Your task to perform on an android device: change the clock display to show seconds Image 0: 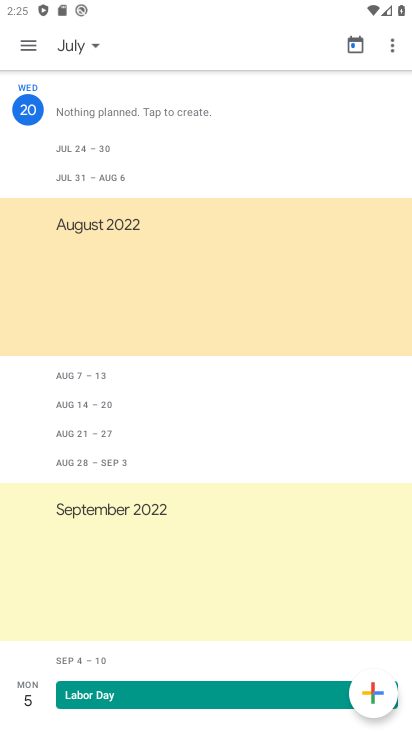
Step 0: press home button
Your task to perform on an android device: change the clock display to show seconds Image 1: 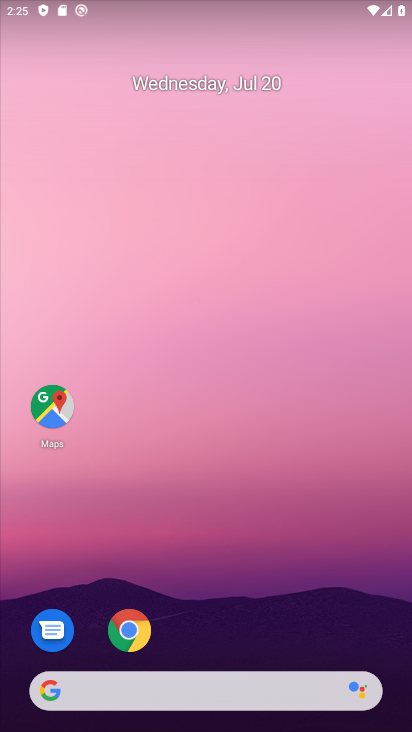
Step 1: drag from (192, 583) to (208, 92)
Your task to perform on an android device: change the clock display to show seconds Image 2: 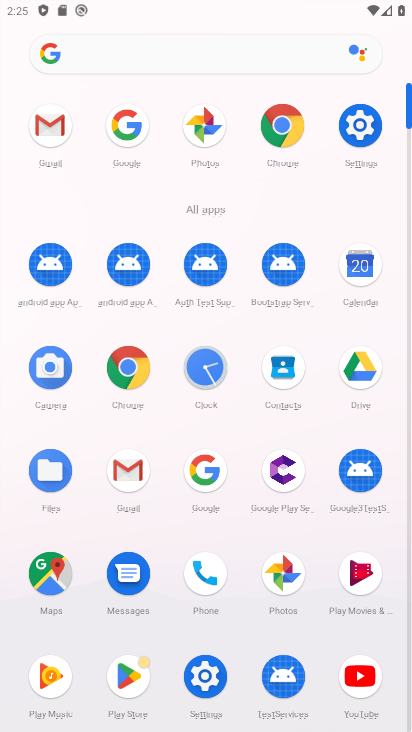
Step 2: click (210, 359)
Your task to perform on an android device: change the clock display to show seconds Image 3: 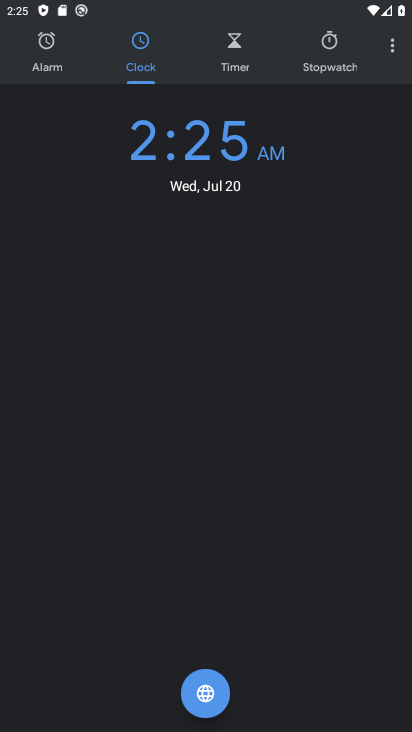
Step 3: click (389, 60)
Your task to perform on an android device: change the clock display to show seconds Image 4: 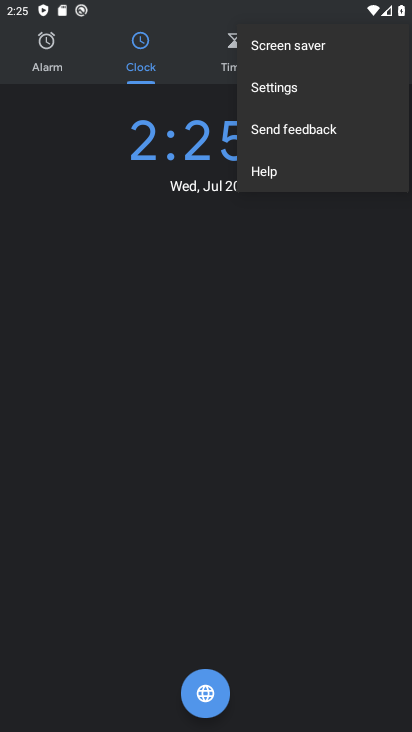
Step 4: click (285, 98)
Your task to perform on an android device: change the clock display to show seconds Image 5: 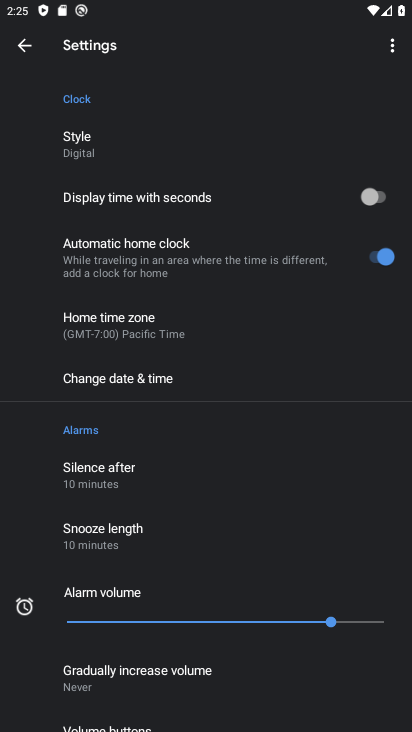
Step 5: click (365, 199)
Your task to perform on an android device: change the clock display to show seconds Image 6: 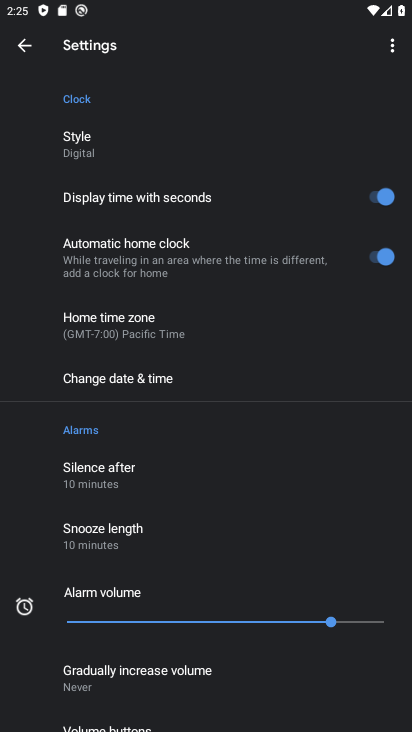
Step 6: task complete